Your task to perform on an android device: Go to Google Image 0: 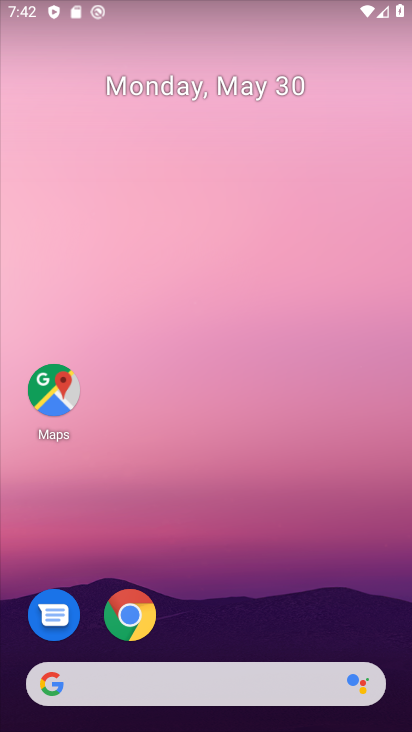
Step 0: drag from (136, 729) to (92, 86)
Your task to perform on an android device: Go to Google Image 1: 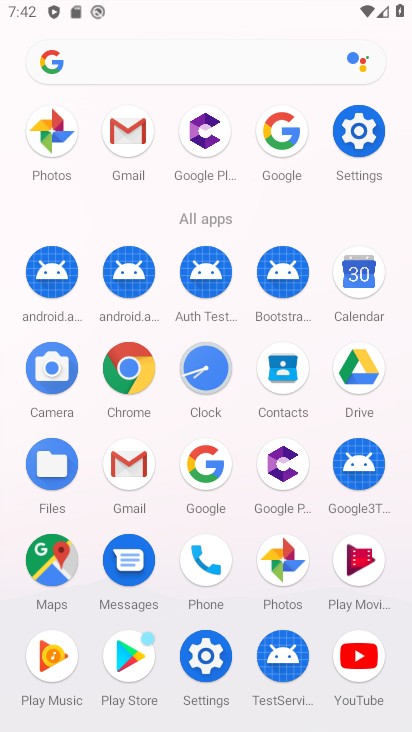
Step 1: click (213, 469)
Your task to perform on an android device: Go to Google Image 2: 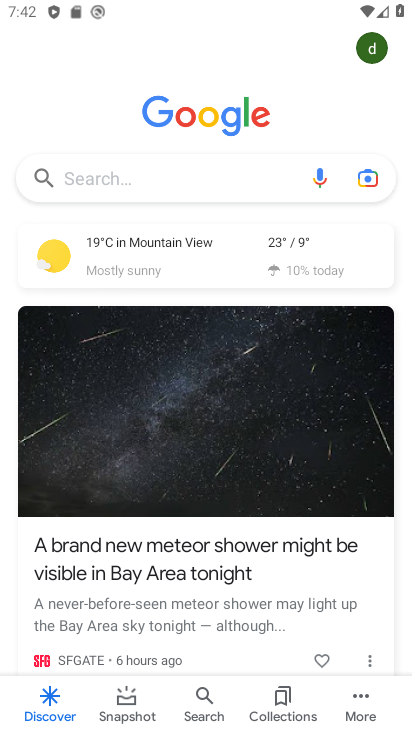
Step 2: task complete